Your task to perform on an android device: Open Chrome and go to settings Image 0: 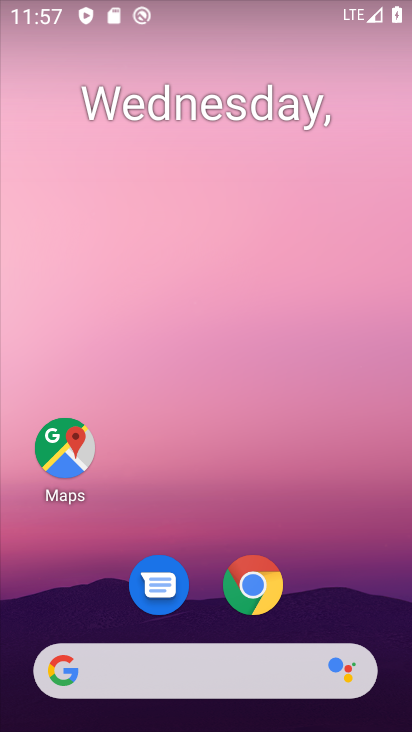
Step 0: click (269, 586)
Your task to perform on an android device: Open Chrome and go to settings Image 1: 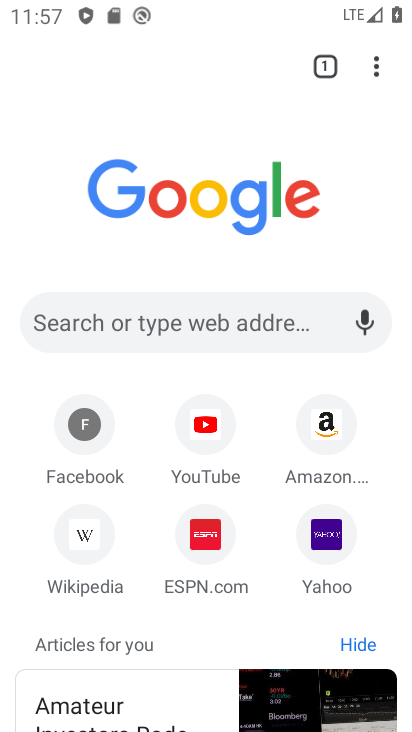
Step 1: click (374, 69)
Your task to perform on an android device: Open Chrome and go to settings Image 2: 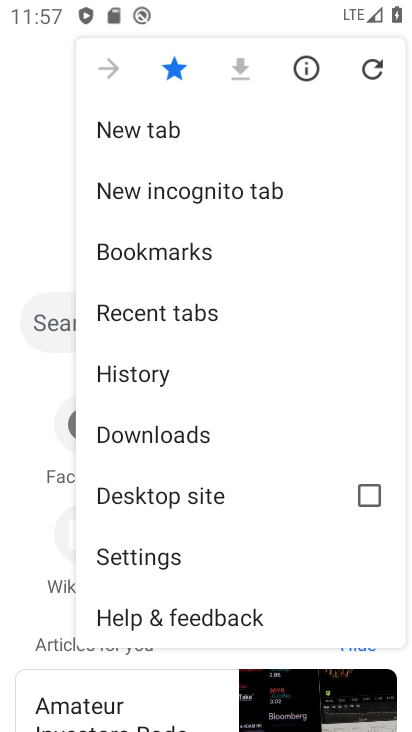
Step 2: click (179, 554)
Your task to perform on an android device: Open Chrome and go to settings Image 3: 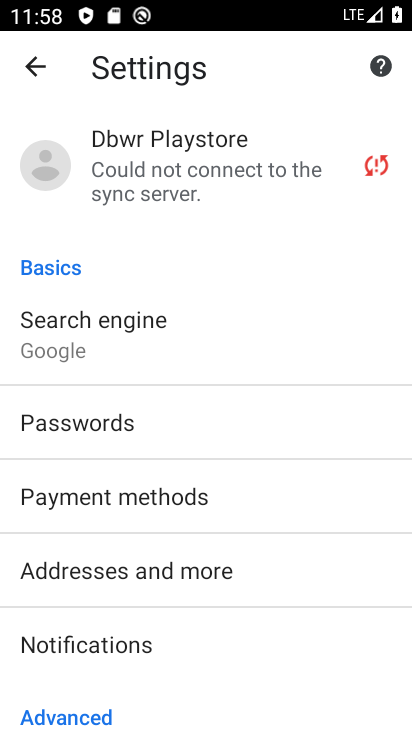
Step 3: task complete